Your task to perform on an android device: Open wifi settings Image 0: 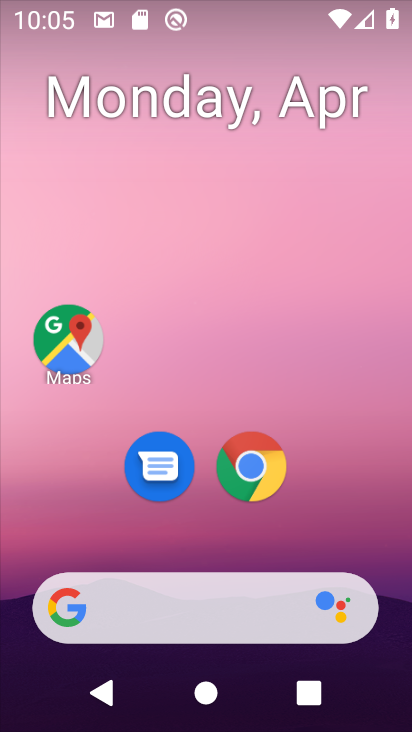
Step 0: drag from (192, 509) to (216, 54)
Your task to perform on an android device: Open wifi settings Image 1: 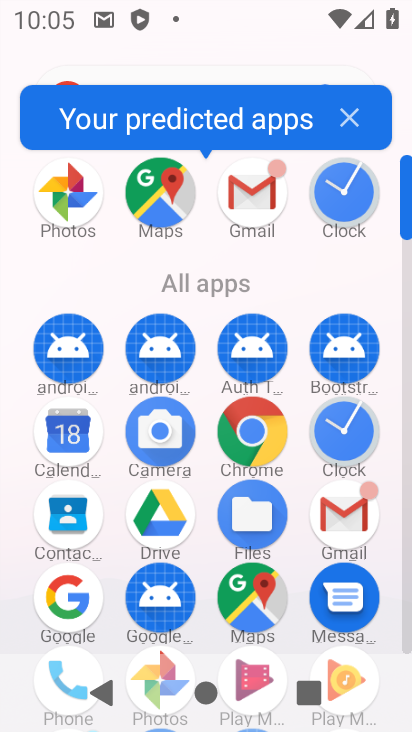
Step 1: drag from (211, 580) to (212, 282)
Your task to perform on an android device: Open wifi settings Image 2: 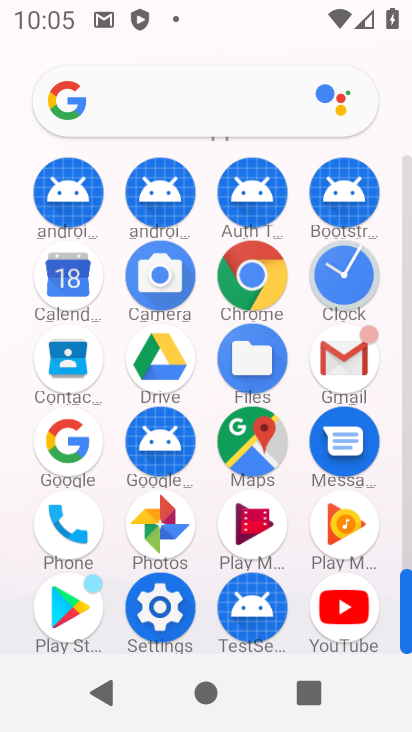
Step 2: click (168, 620)
Your task to perform on an android device: Open wifi settings Image 3: 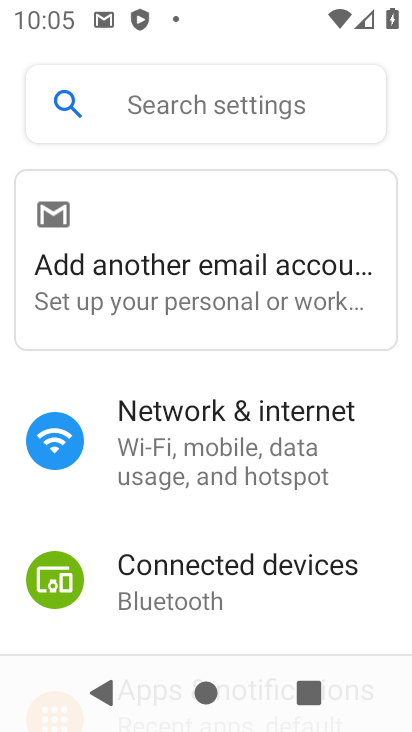
Step 3: task complete